Your task to perform on an android device: Is it going to rain tomorrow? Image 0: 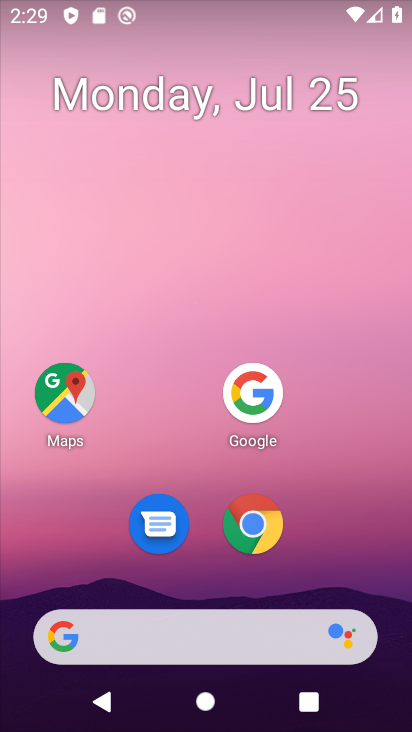
Step 0: click (176, 628)
Your task to perform on an android device: Is it going to rain tomorrow? Image 1: 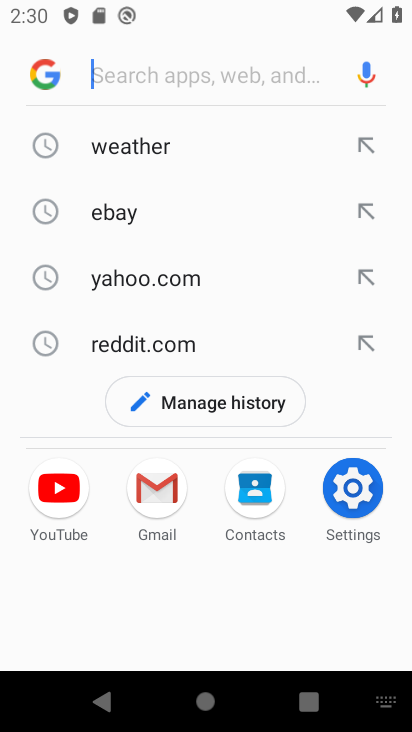
Step 1: click (146, 152)
Your task to perform on an android device: Is it going to rain tomorrow? Image 2: 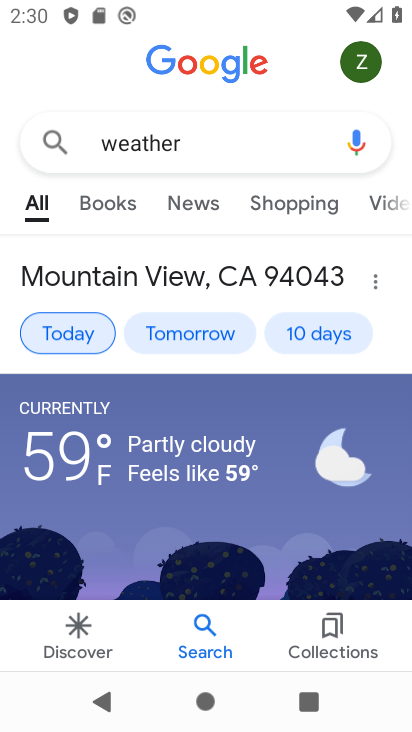
Step 2: task complete